Your task to perform on an android device: allow notifications from all sites in the chrome app Image 0: 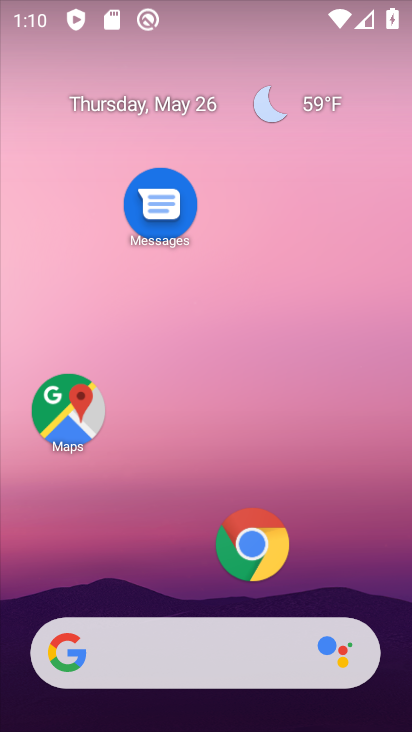
Step 0: click (251, 549)
Your task to perform on an android device: allow notifications from all sites in the chrome app Image 1: 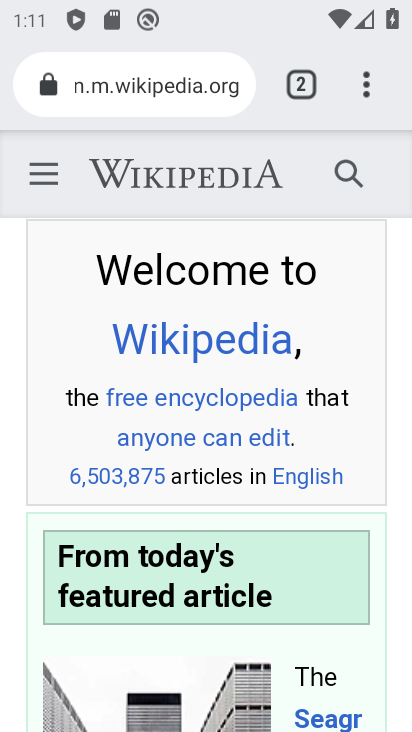
Step 1: click (367, 79)
Your task to perform on an android device: allow notifications from all sites in the chrome app Image 2: 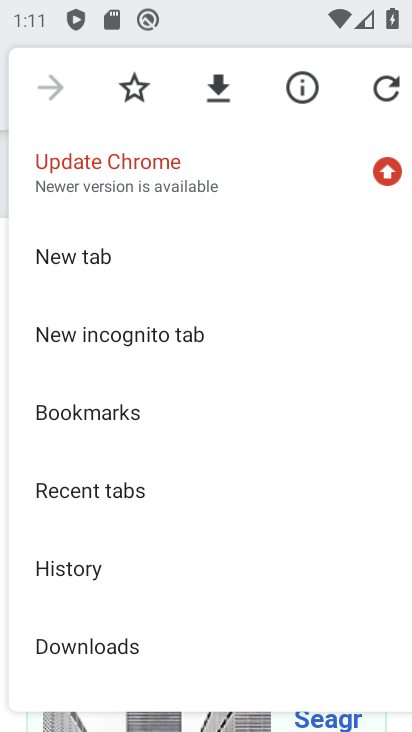
Step 2: drag from (161, 528) to (179, 305)
Your task to perform on an android device: allow notifications from all sites in the chrome app Image 3: 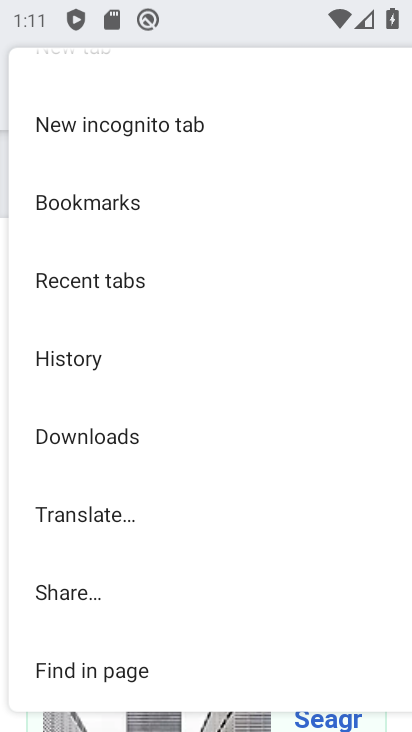
Step 3: drag from (123, 589) to (162, 309)
Your task to perform on an android device: allow notifications from all sites in the chrome app Image 4: 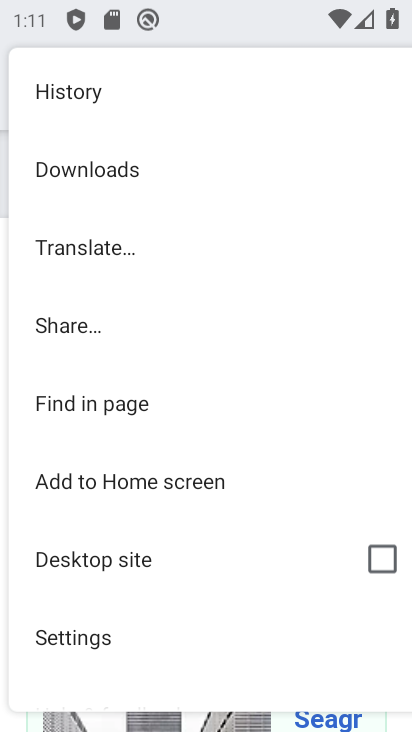
Step 4: drag from (131, 638) to (225, 313)
Your task to perform on an android device: allow notifications from all sites in the chrome app Image 5: 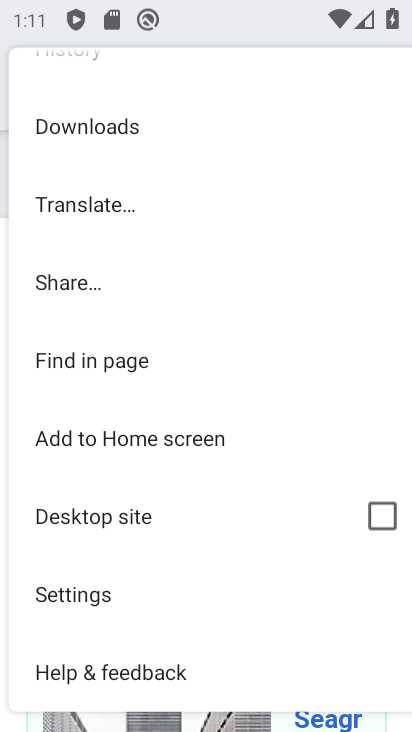
Step 5: click (129, 610)
Your task to perform on an android device: allow notifications from all sites in the chrome app Image 6: 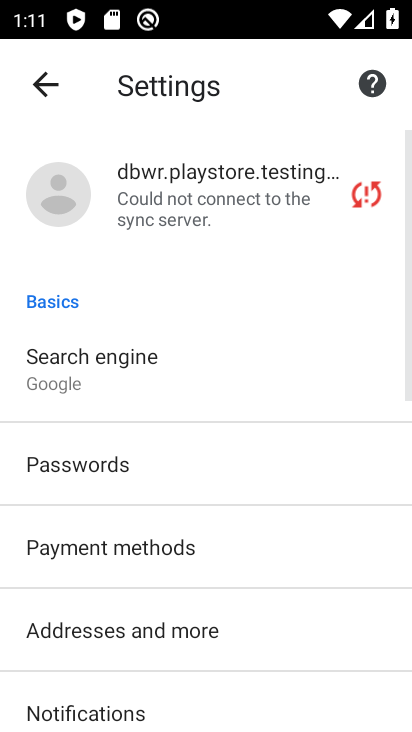
Step 6: drag from (129, 610) to (197, 230)
Your task to perform on an android device: allow notifications from all sites in the chrome app Image 7: 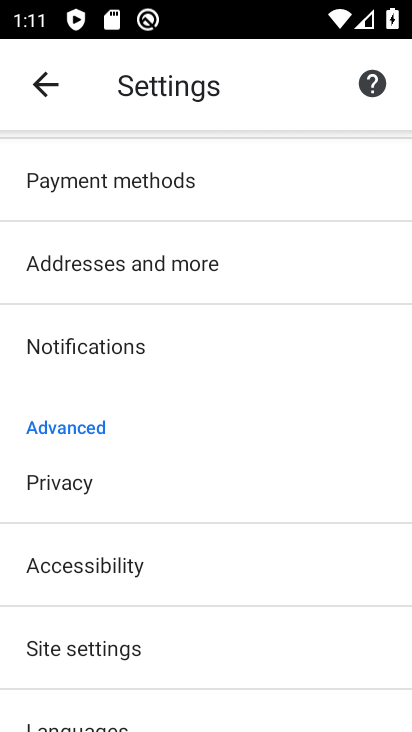
Step 7: click (98, 323)
Your task to perform on an android device: allow notifications from all sites in the chrome app Image 8: 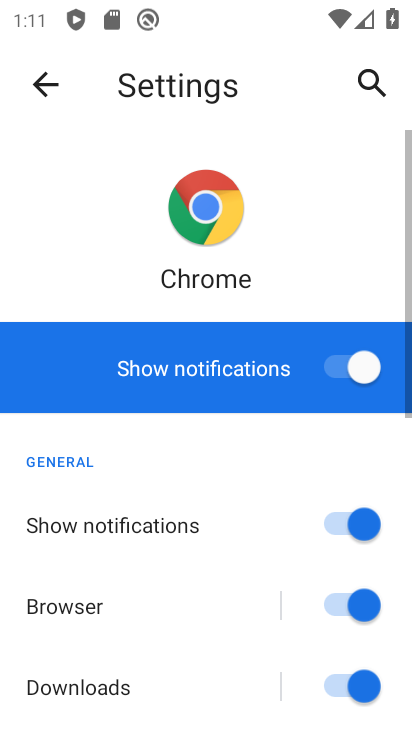
Step 8: task complete